Your task to perform on an android device: toggle priority inbox in the gmail app Image 0: 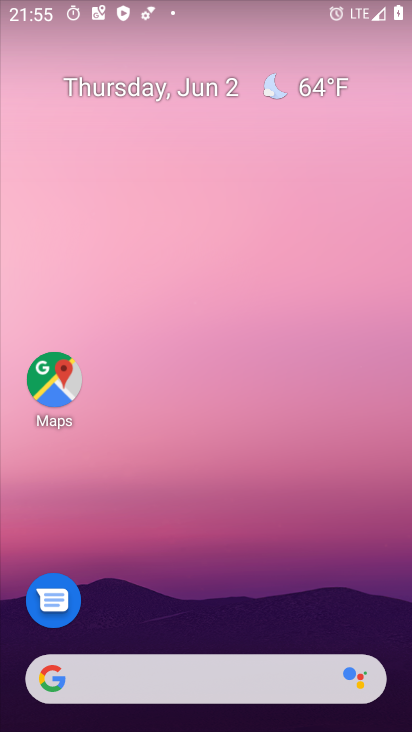
Step 0: drag from (214, 621) to (215, 110)
Your task to perform on an android device: toggle priority inbox in the gmail app Image 1: 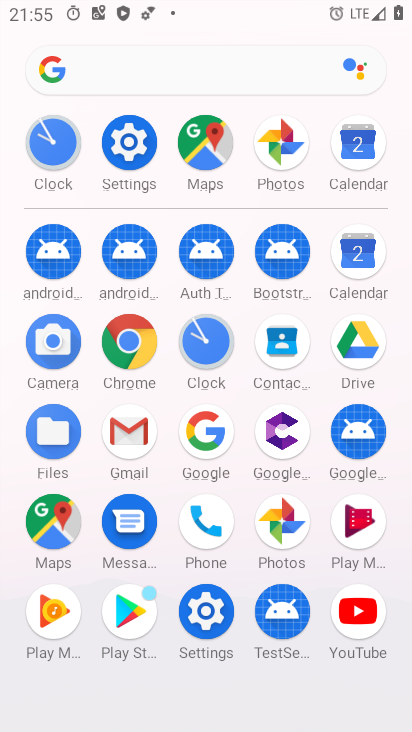
Step 1: click (140, 432)
Your task to perform on an android device: toggle priority inbox in the gmail app Image 2: 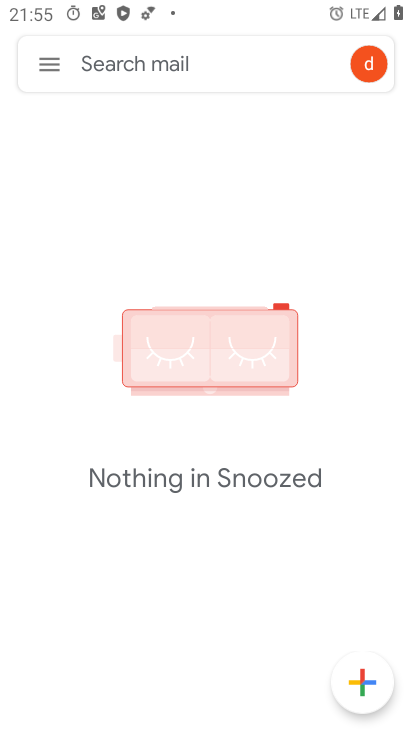
Step 2: click (40, 62)
Your task to perform on an android device: toggle priority inbox in the gmail app Image 3: 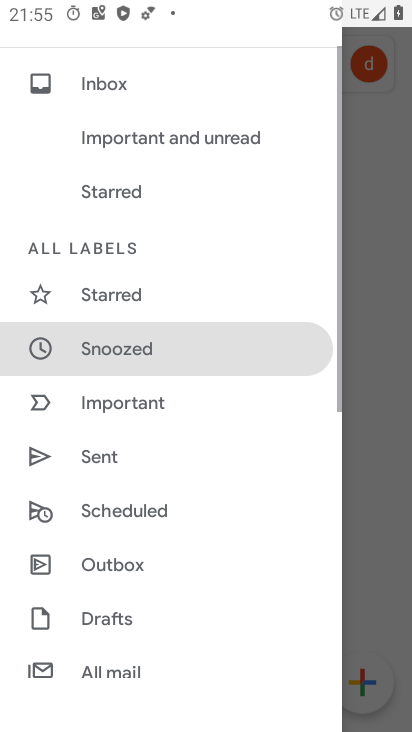
Step 3: drag from (169, 627) to (139, 132)
Your task to perform on an android device: toggle priority inbox in the gmail app Image 4: 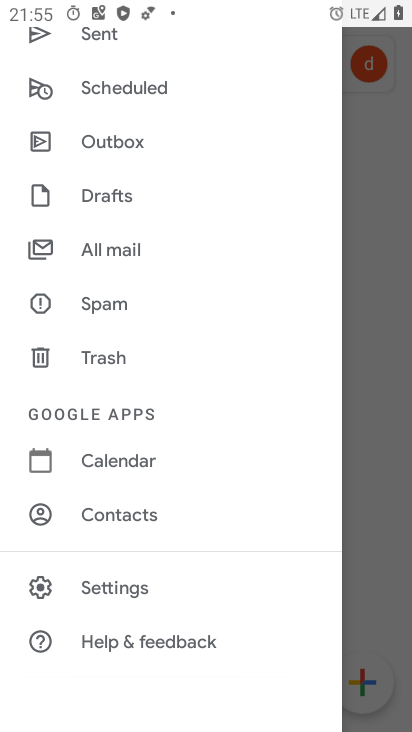
Step 4: click (131, 583)
Your task to perform on an android device: toggle priority inbox in the gmail app Image 5: 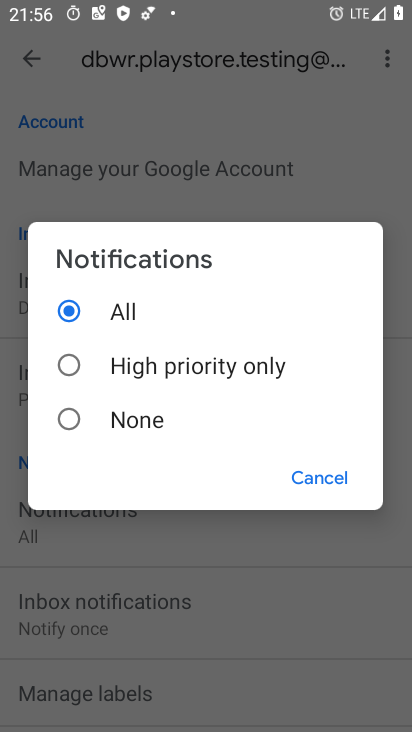
Step 5: click (305, 478)
Your task to perform on an android device: toggle priority inbox in the gmail app Image 6: 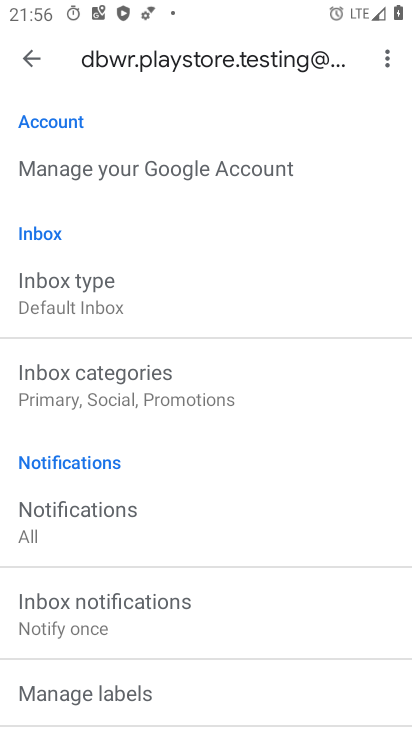
Step 6: click (101, 287)
Your task to perform on an android device: toggle priority inbox in the gmail app Image 7: 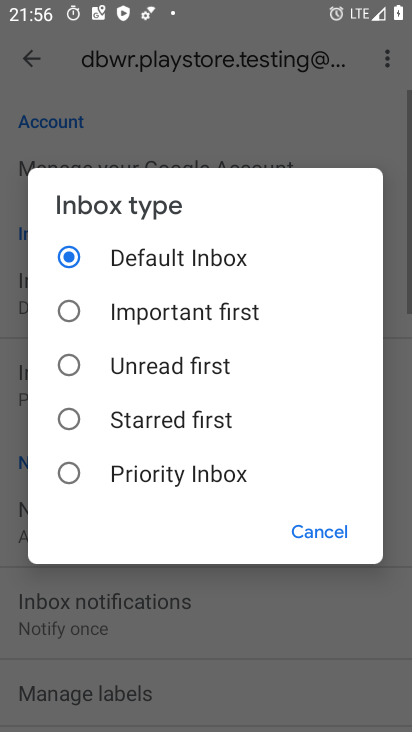
Step 7: click (69, 472)
Your task to perform on an android device: toggle priority inbox in the gmail app Image 8: 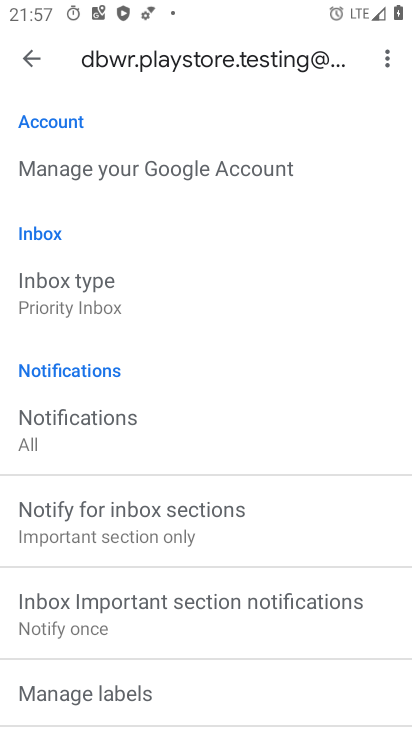
Step 8: task complete